Your task to perform on an android device: toggle improve location accuracy Image 0: 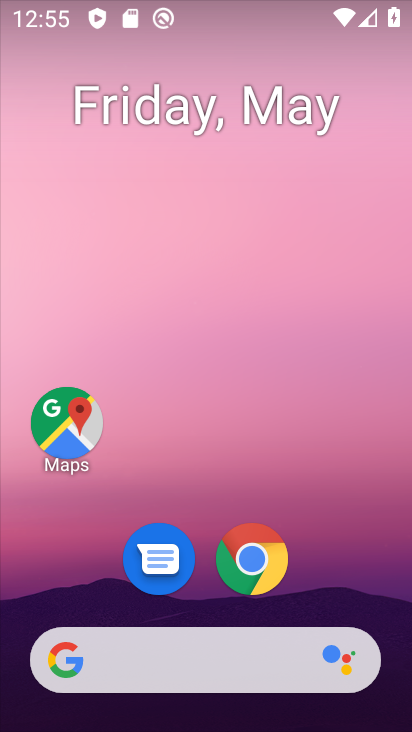
Step 0: drag from (355, 562) to (350, 166)
Your task to perform on an android device: toggle improve location accuracy Image 1: 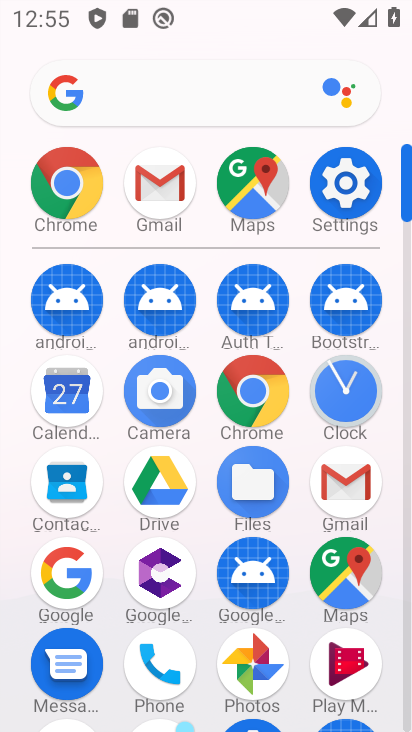
Step 1: click (354, 162)
Your task to perform on an android device: toggle improve location accuracy Image 2: 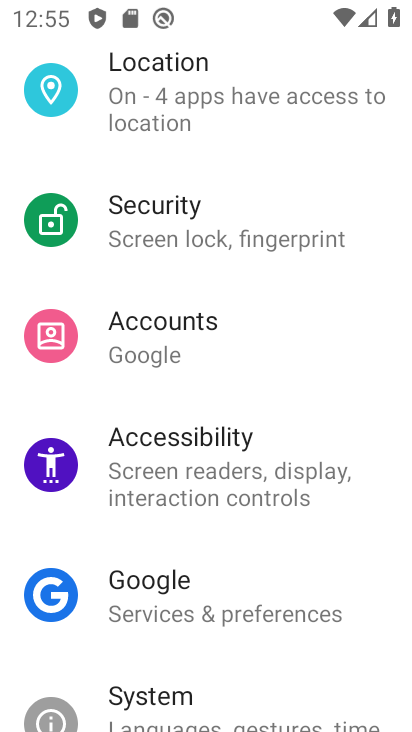
Step 2: drag from (249, 575) to (391, 144)
Your task to perform on an android device: toggle improve location accuracy Image 3: 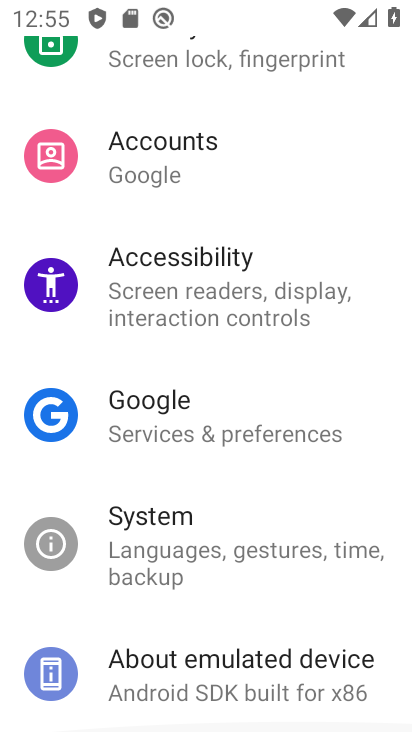
Step 3: drag from (279, 158) to (256, 578)
Your task to perform on an android device: toggle improve location accuracy Image 4: 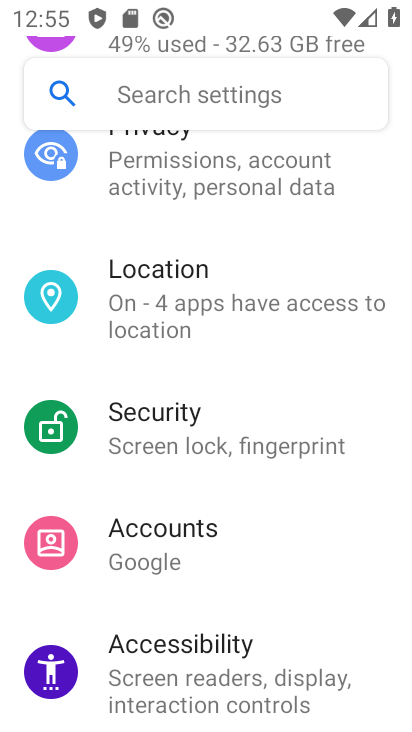
Step 4: drag from (278, 261) to (268, 510)
Your task to perform on an android device: toggle improve location accuracy Image 5: 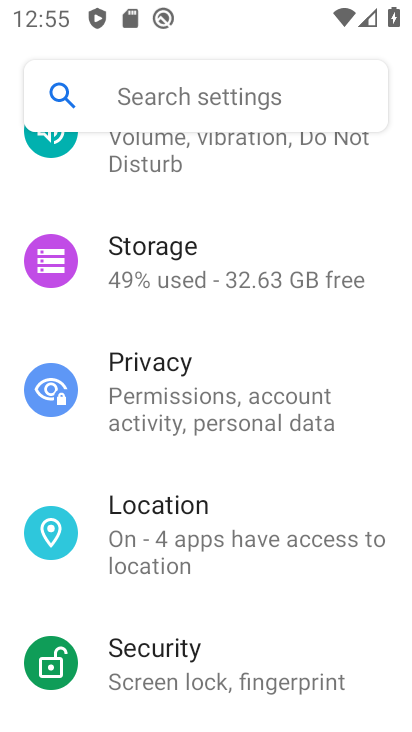
Step 5: drag from (288, 253) to (361, 194)
Your task to perform on an android device: toggle improve location accuracy Image 6: 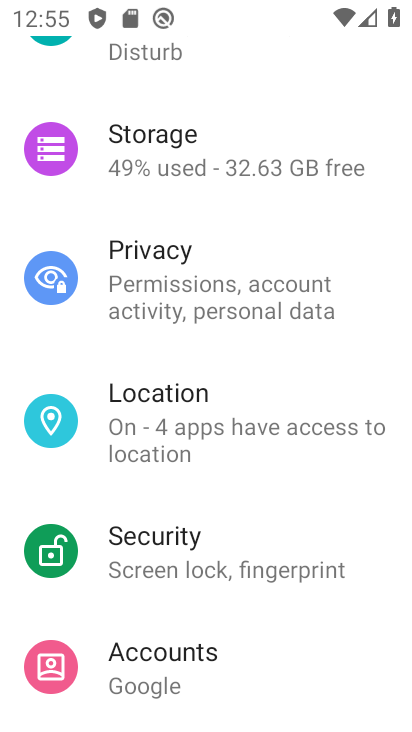
Step 6: click (246, 407)
Your task to perform on an android device: toggle improve location accuracy Image 7: 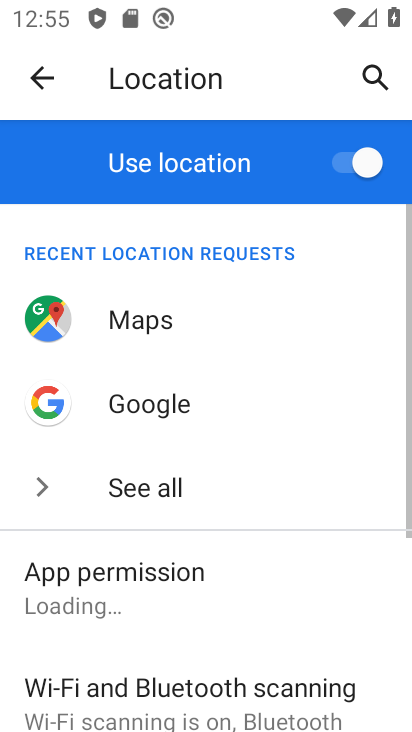
Step 7: drag from (285, 604) to (396, 152)
Your task to perform on an android device: toggle improve location accuracy Image 8: 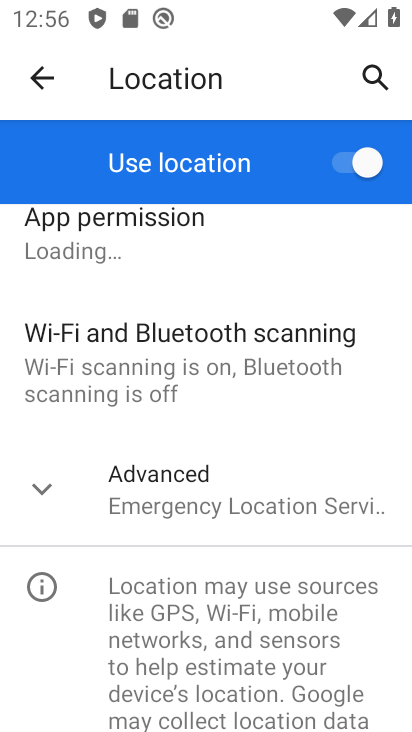
Step 8: click (248, 478)
Your task to perform on an android device: toggle improve location accuracy Image 9: 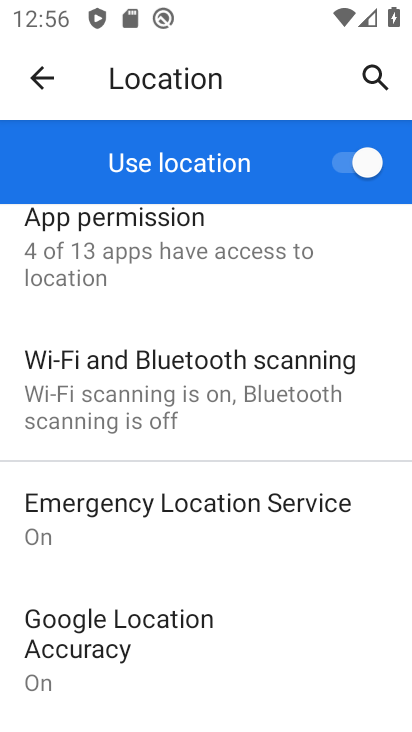
Step 9: click (131, 641)
Your task to perform on an android device: toggle improve location accuracy Image 10: 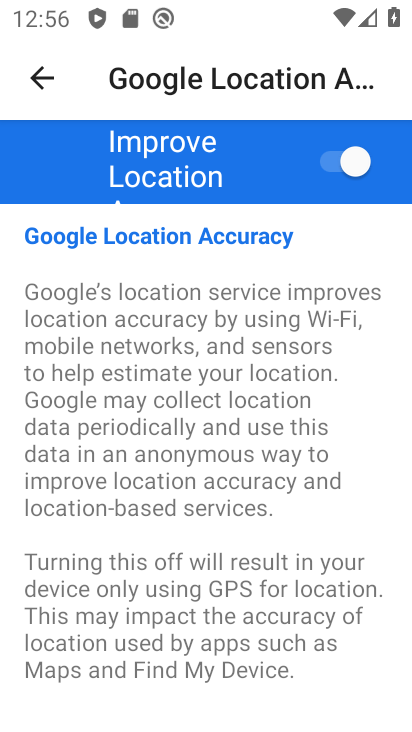
Step 10: click (326, 171)
Your task to perform on an android device: toggle improve location accuracy Image 11: 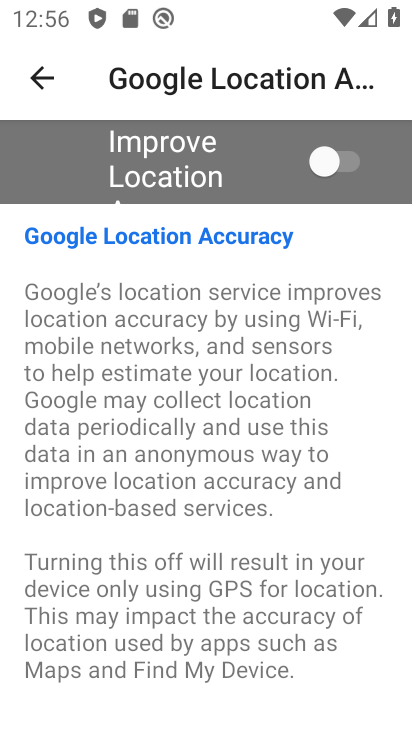
Step 11: task complete